Your task to perform on an android device: Go to Google Image 0: 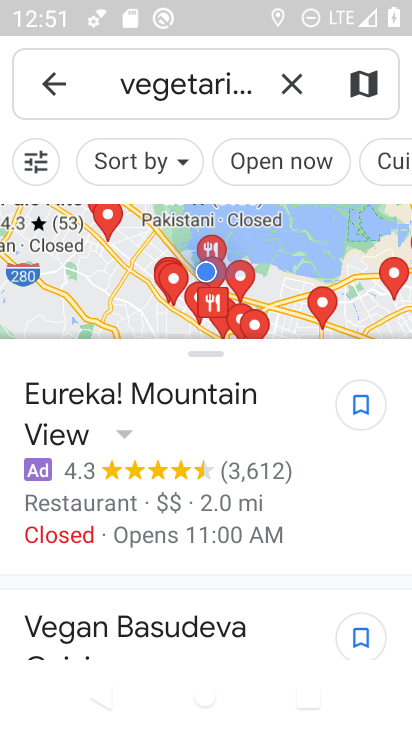
Step 0: press home button
Your task to perform on an android device: Go to Google Image 1: 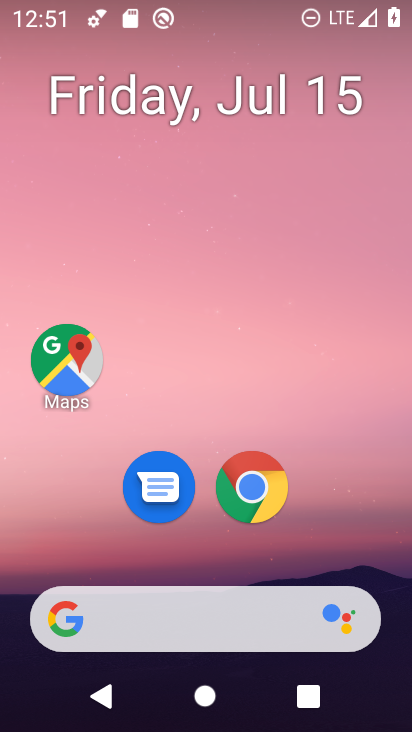
Step 1: drag from (383, 612) to (409, 2)
Your task to perform on an android device: Go to Google Image 2: 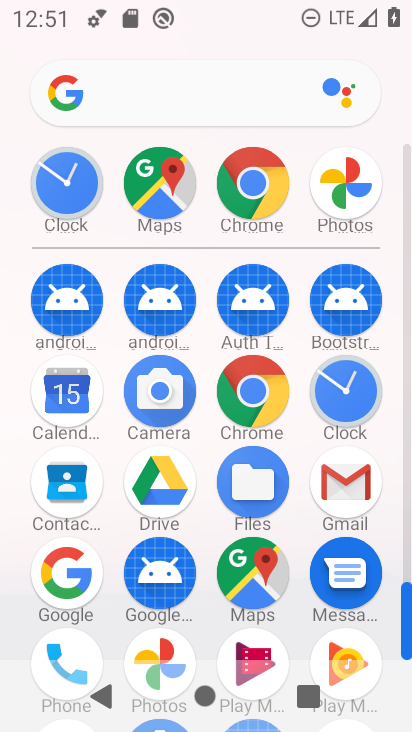
Step 2: click (51, 576)
Your task to perform on an android device: Go to Google Image 3: 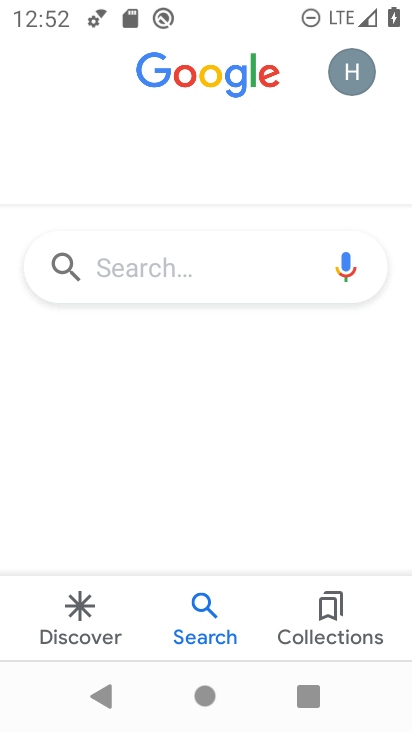
Step 3: task complete